Your task to perform on an android device: Search for asus rog on amazon.com, select the first entry, and add it to the cart. Image 0: 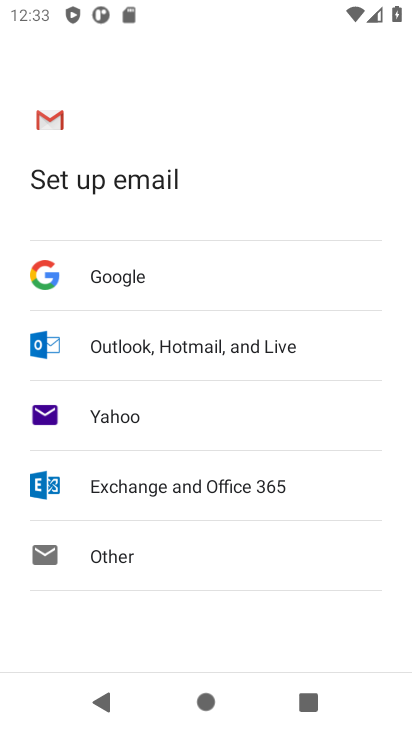
Step 0: press home button
Your task to perform on an android device: Search for asus rog on amazon.com, select the first entry, and add it to the cart. Image 1: 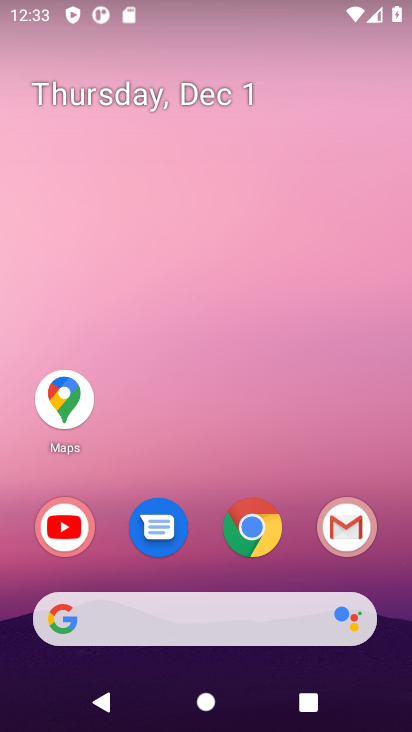
Step 1: click (250, 531)
Your task to perform on an android device: Search for asus rog on amazon.com, select the first entry, and add it to the cart. Image 2: 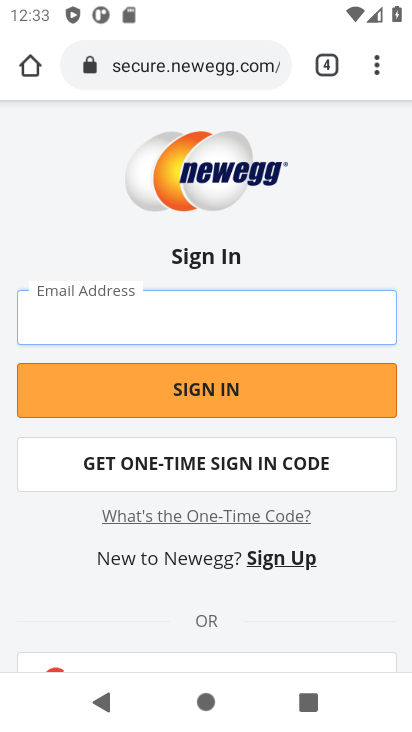
Step 2: click (160, 63)
Your task to perform on an android device: Search for asus rog on amazon.com, select the first entry, and add it to the cart. Image 3: 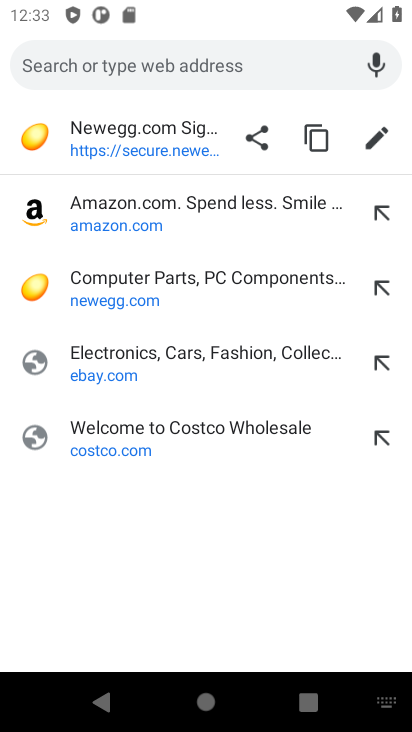
Step 3: click (86, 229)
Your task to perform on an android device: Search for asus rog on amazon.com, select the first entry, and add it to the cart. Image 4: 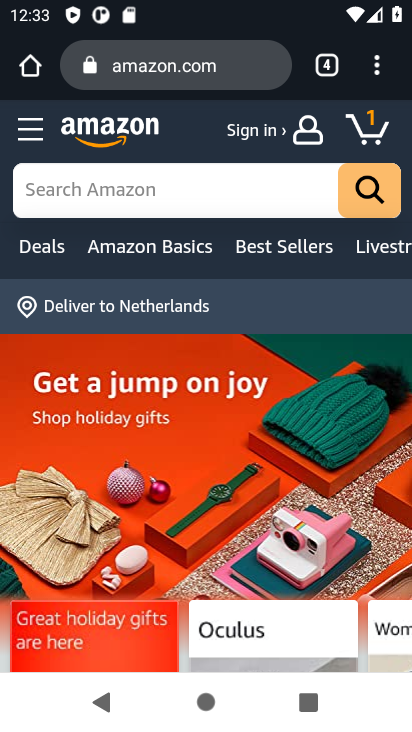
Step 4: click (87, 180)
Your task to perform on an android device: Search for asus rog on amazon.com, select the first entry, and add it to the cart. Image 5: 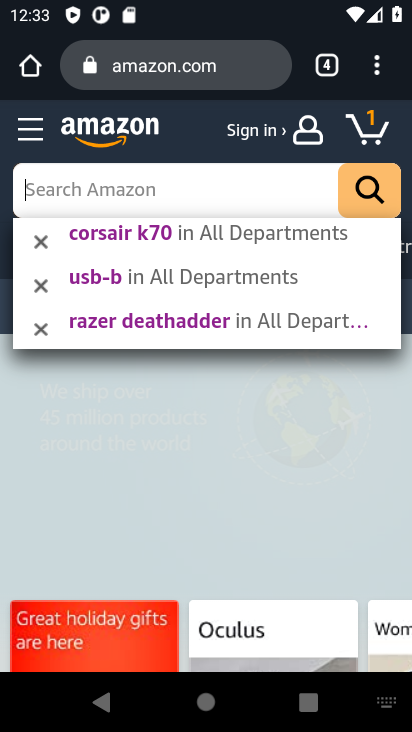
Step 5: type "asus rog"
Your task to perform on an android device: Search for asus rog on amazon.com, select the first entry, and add it to the cart. Image 6: 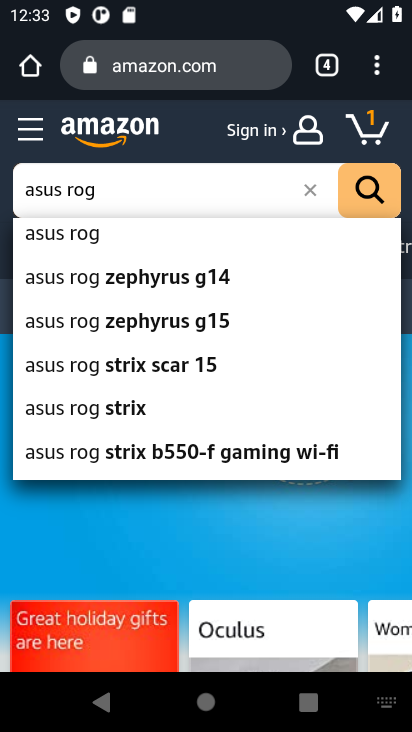
Step 6: click (76, 247)
Your task to perform on an android device: Search for asus rog on amazon.com, select the first entry, and add it to the cart. Image 7: 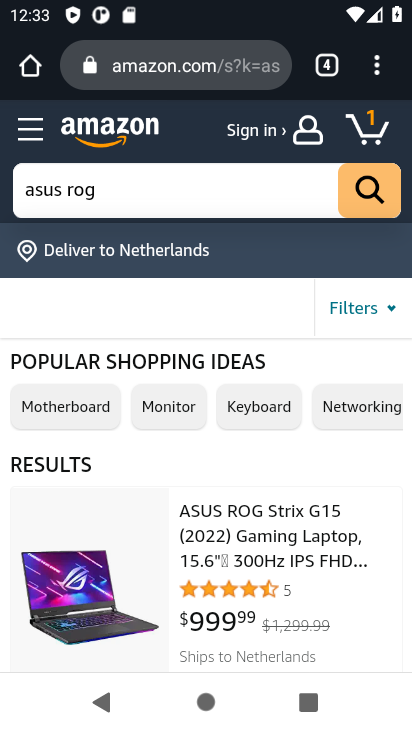
Step 7: drag from (230, 575) to (249, 390)
Your task to perform on an android device: Search for asus rog on amazon.com, select the first entry, and add it to the cart. Image 8: 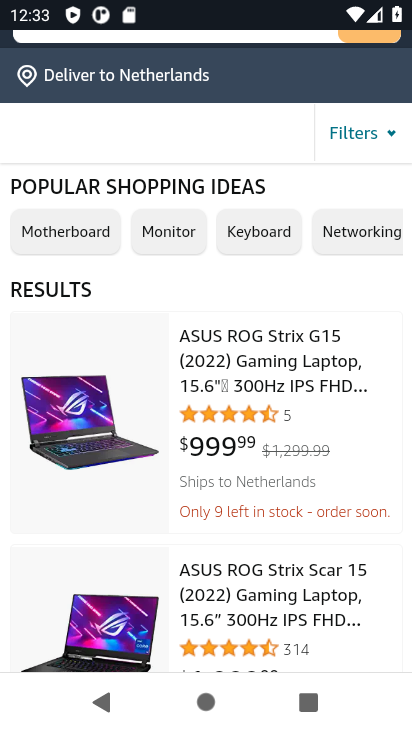
Step 8: click (271, 376)
Your task to perform on an android device: Search for asus rog on amazon.com, select the first entry, and add it to the cart. Image 9: 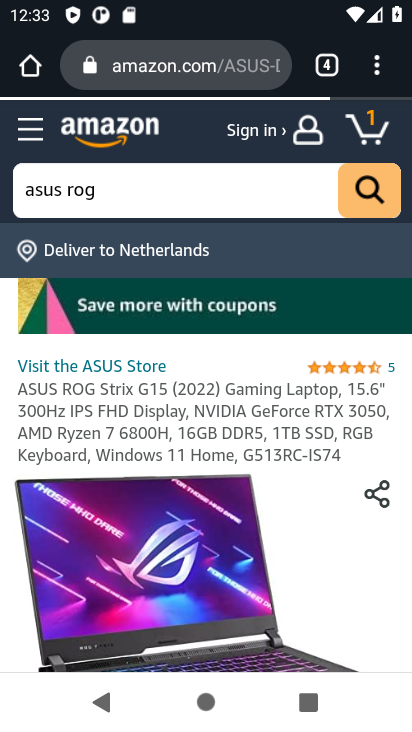
Step 9: drag from (242, 513) to (241, 201)
Your task to perform on an android device: Search for asus rog on amazon.com, select the first entry, and add it to the cart. Image 10: 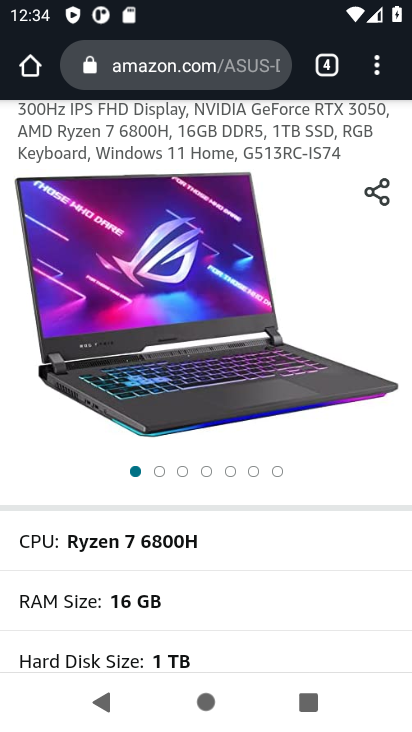
Step 10: drag from (215, 505) to (195, 215)
Your task to perform on an android device: Search for asus rog on amazon.com, select the first entry, and add it to the cart. Image 11: 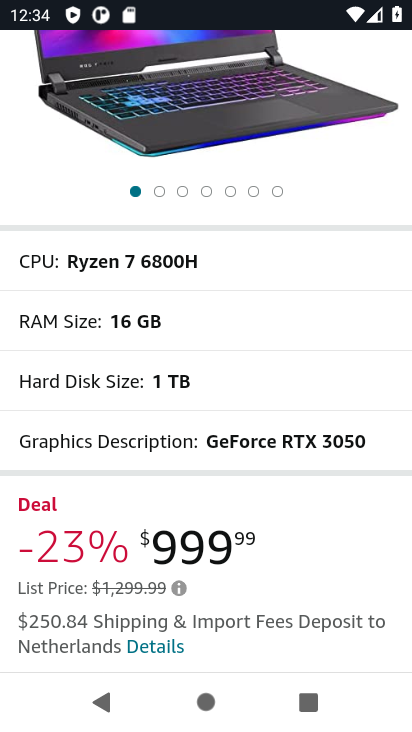
Step 11: drag from (178, 459) to (176, 231)
Your task to perform on an android device: Search for asus rog on amazon.com, select the first entry, and add it to the cart. Image 12: 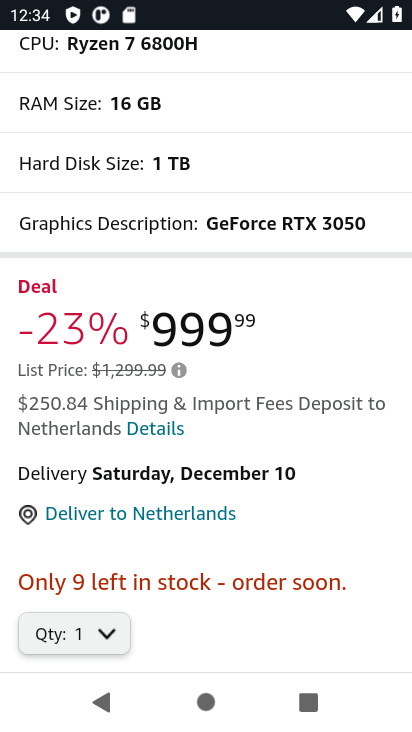
Step 12: drag from (182, 445) to (180, 216)
Your task to perform on an android device: Search for asus rog on amazon.com, select the first entry, and add it to the cart. Image 13: 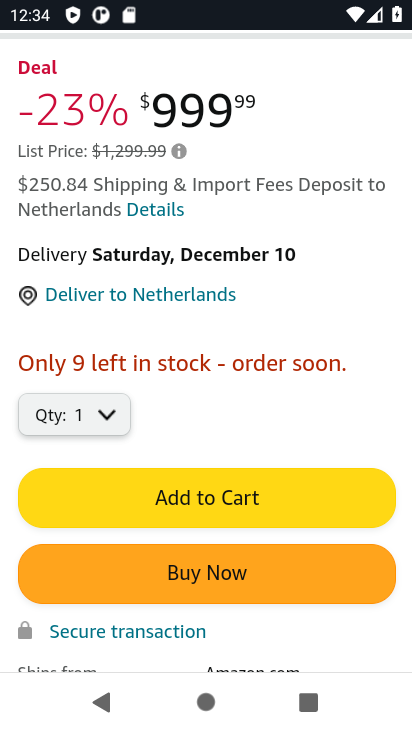
Step 13: click (192, 484)
Your task to perform on an android device: Search for asus rog on amazon.com, select the first entry, and add it to the cart. Image 14: 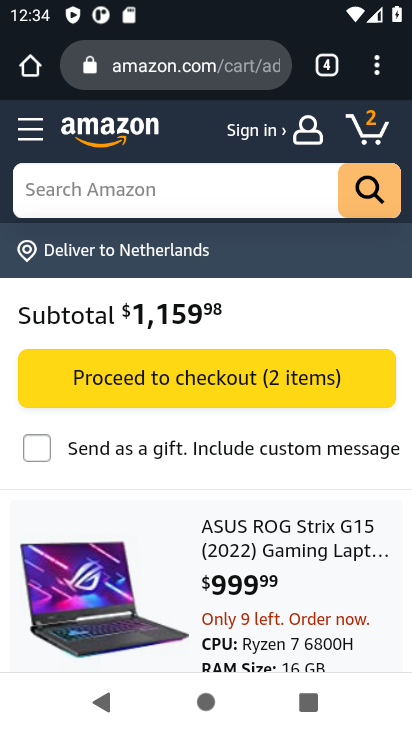
Step 14: task complete